Your task to perform on an android device: delete a single message in the gmail app Image 0: 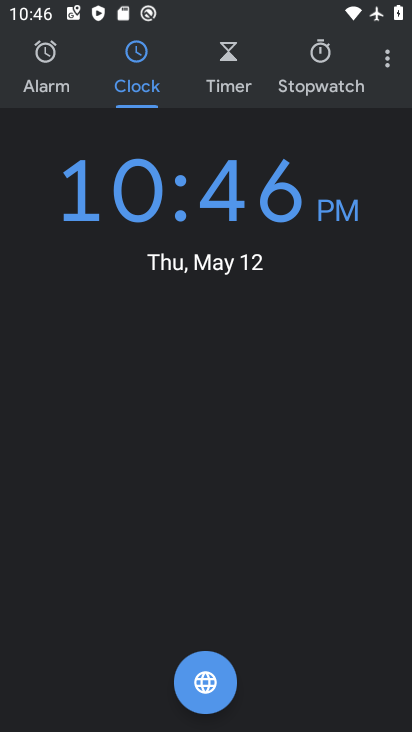
Step 0: press home button
Your task to perform on an android device: delete a single message in the gmail app Image 1: 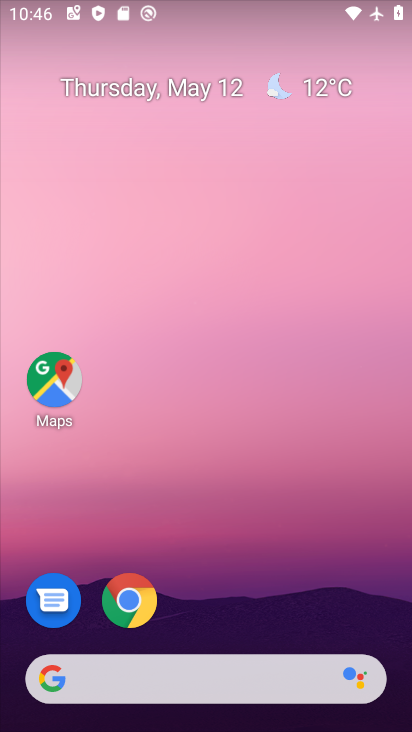
Step 1: drag from (257, 570) to (190, 222)
Your task to perform on an android device: delete a single message in the gmail app Image 2: 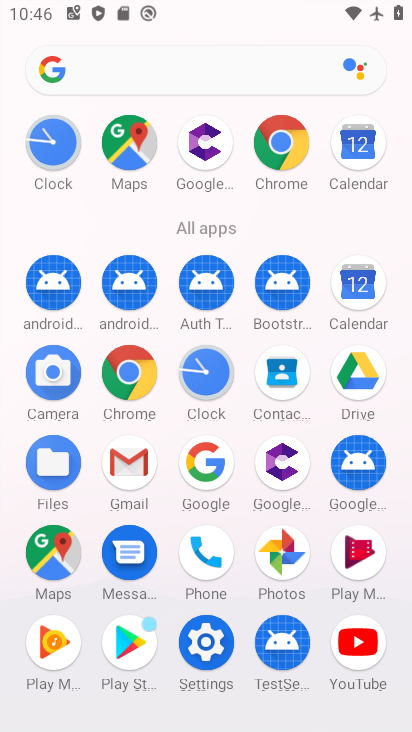
Step 2: click (116, 462)
Your task to perform on an android device: delete a single message in the gmail app Image 3: 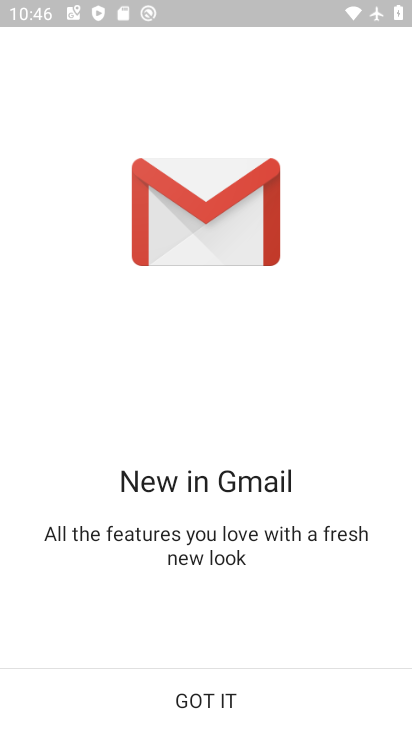
Step 3: click (208, 705)
Your task to perform on an android device: delete a single message in the gmail app Image 4: 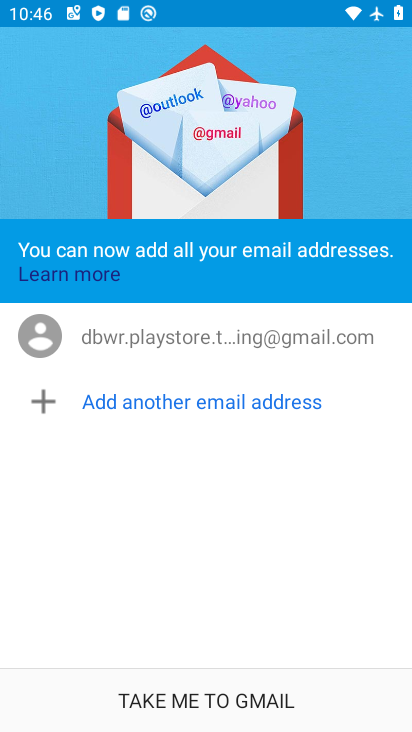
Step 4: click (208, 705)
Your task to perform on an android device: delete a single message in the gmail app Image 5: 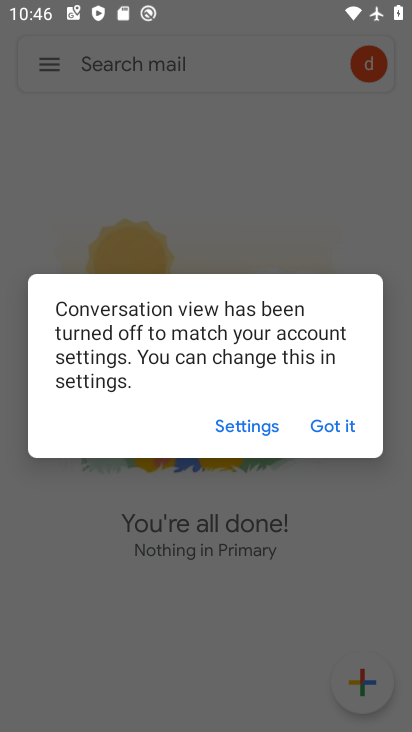
Step 5: click (322, 425)
Your task to perform on an android device: delete a single message in the gmail app Image 6: 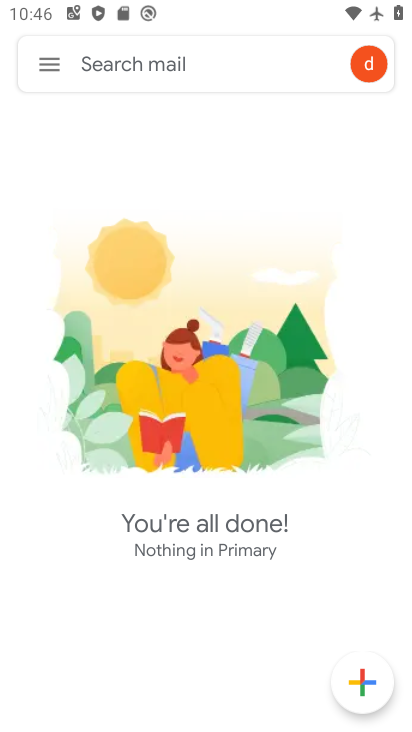
Step 6: click (51, 67)
Your task to perform on an android device: delete a single message in the gmail app Image 7: 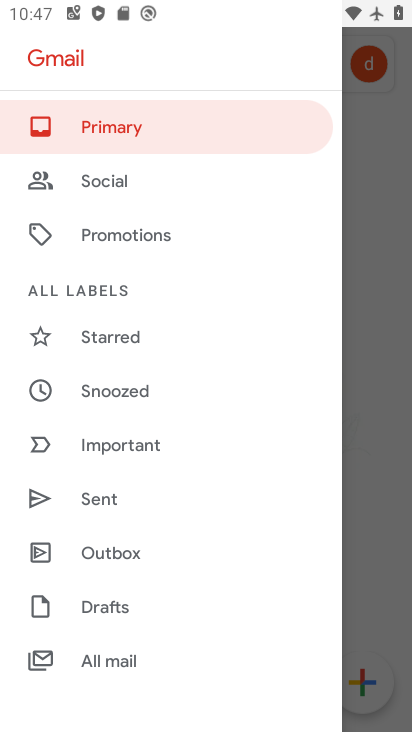
Step 7: click (132, 660)
Your task to perform on an android device: delete a single message in the gmail app Image 8: 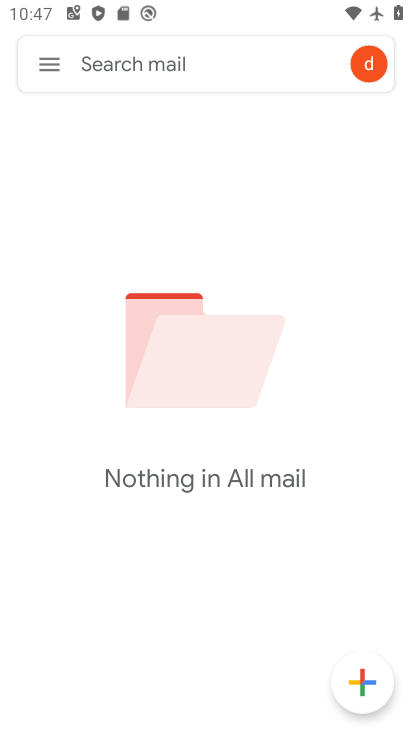
Step 8: task complete